Your task to perform on an android device: View the shopping cart on walmart.com. Add "razer blackwidow" to the cart on walmart.com Image 0: 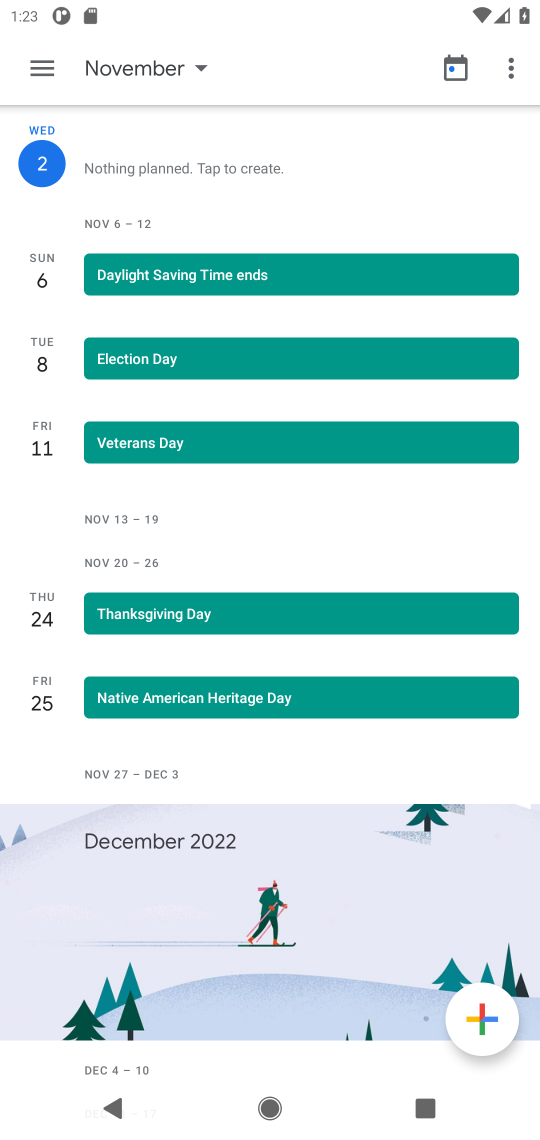
Step 0: press home button
Your task to perform on an android device: View the shopping cart on walmart.com. Add "razer blackwidow" to the cart on walmart.com Image 1: 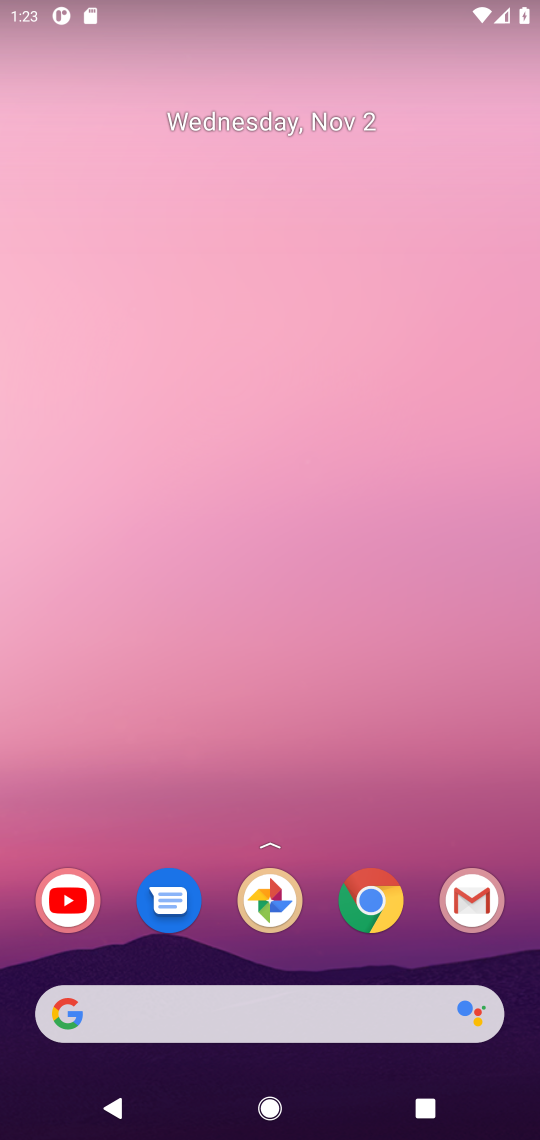
Step 1: click (357, 878)
Your task to perform on an android device: View the shopping cart on walmart.com. Add "razer blackwidow" to the cart on walmart.com Image 2: 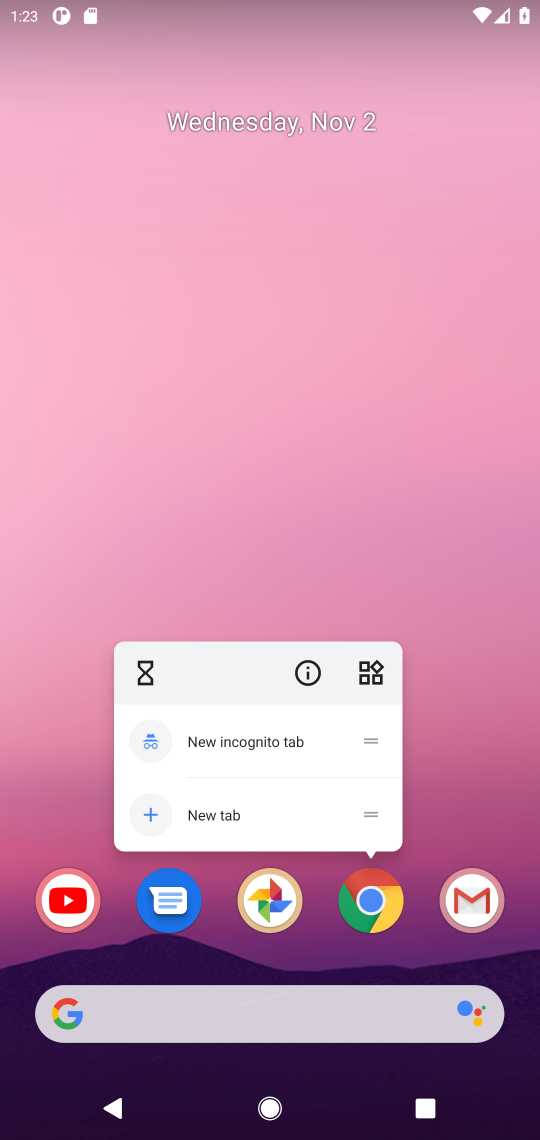
Step 2: click (391, 910)
Your task to perform on an android device: View the shopping cart on walmart.com. Add "razer blackwidow" to the cart on walmart.com Image 3: 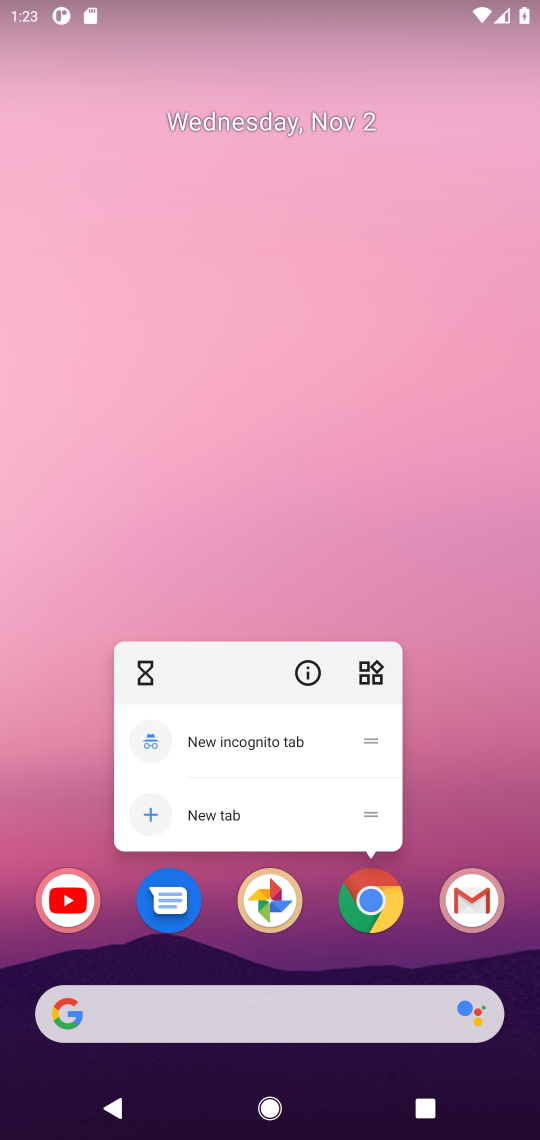
Step 3: click (341, 907)
Your task to perform on an android device: View the shopping cart on walmart.com. Add "razer blackwidow" to the cart on walmart.com Image 4: 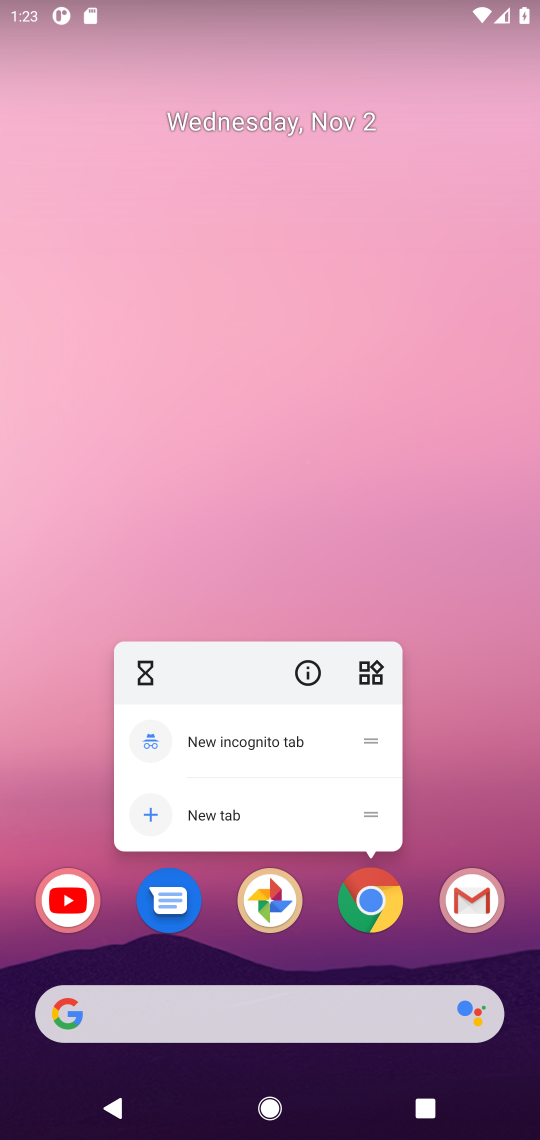
Step 4: click (363, 908)
Your task to perform on an android device: View the shopping cart on walmart.com. Add "razer blackwidow" to the cart on walmart.com Image 5: 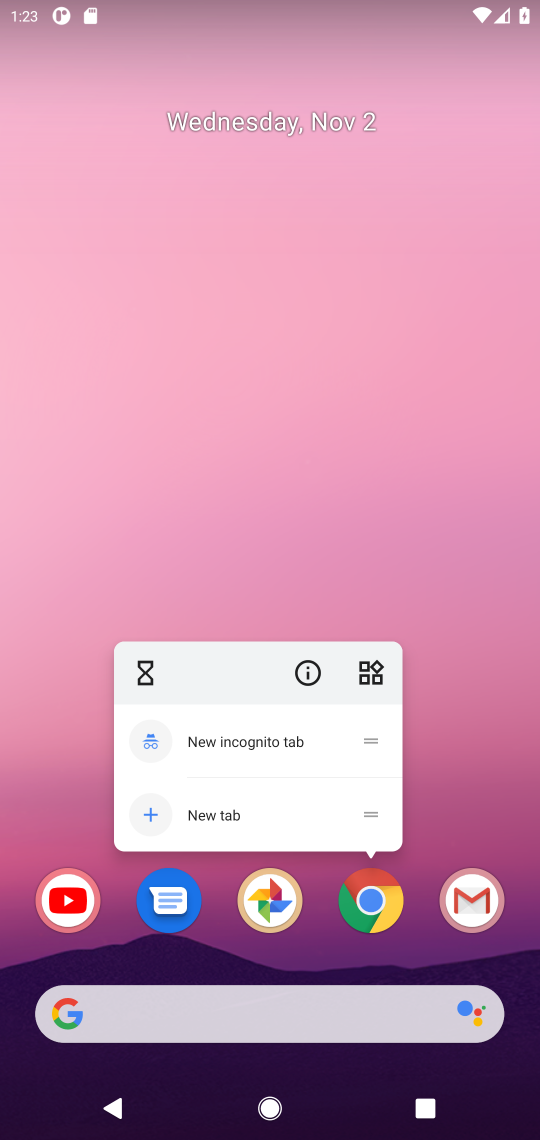
Step 5: click (363, 908)
Your task to perform on an android device: View the shopping cart on walmart.com. Add "razer blackwidow" to the cart on walmart.com Image 6: 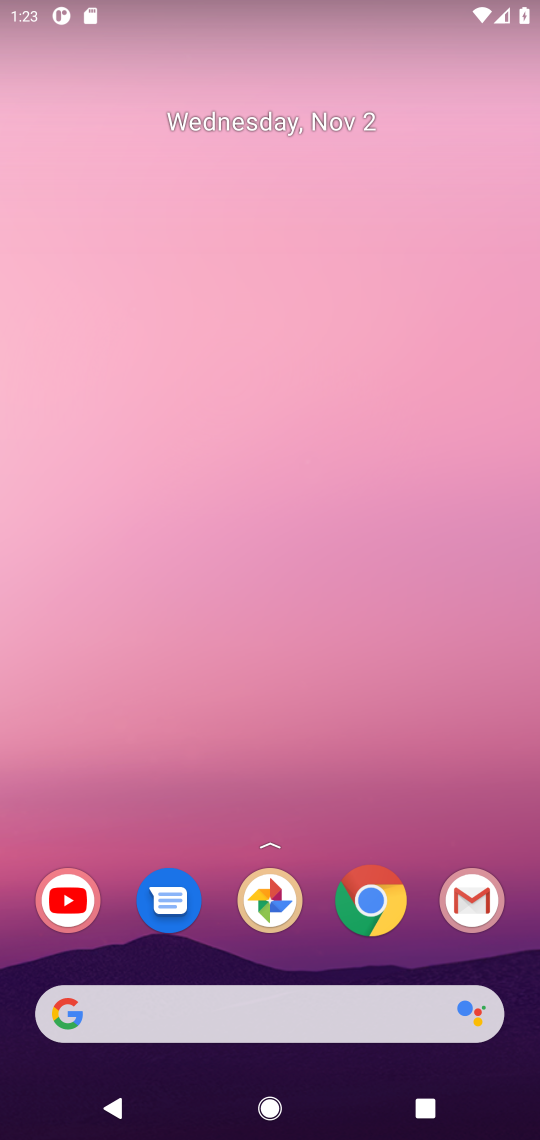
Step 6: click (364, 909)
Your task to perform on an android device: View the shopping cart on walmart.com. Add "razer blackwidow" to the cart on walmart.com Image 7: 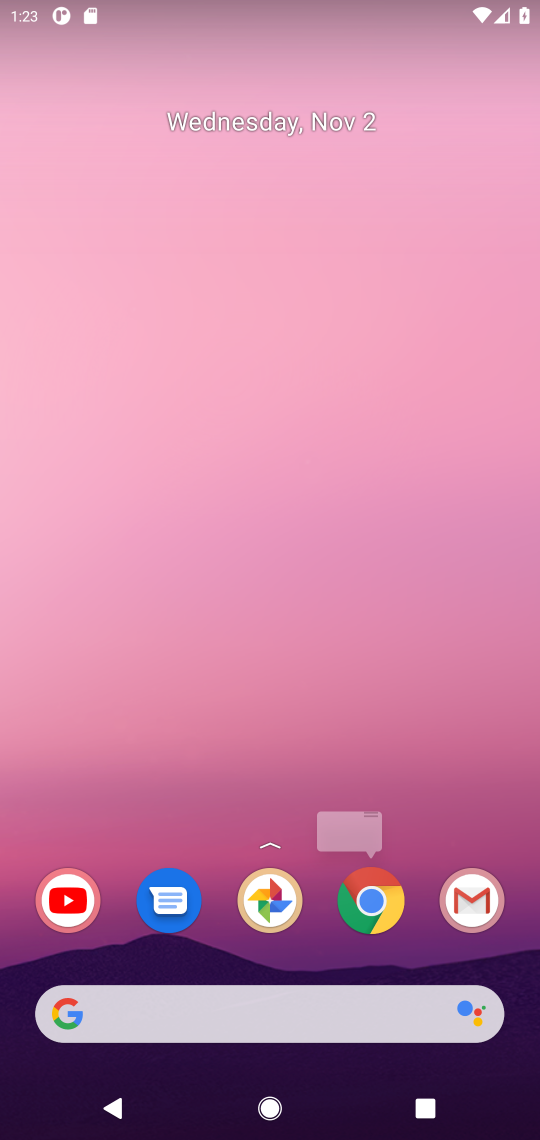
Step 7: click (364, 912)
Your task to perform on an android device: View the shopping cart on walmart.com. Add "razer blackwidow" to the cart on walmart.com Image 8: 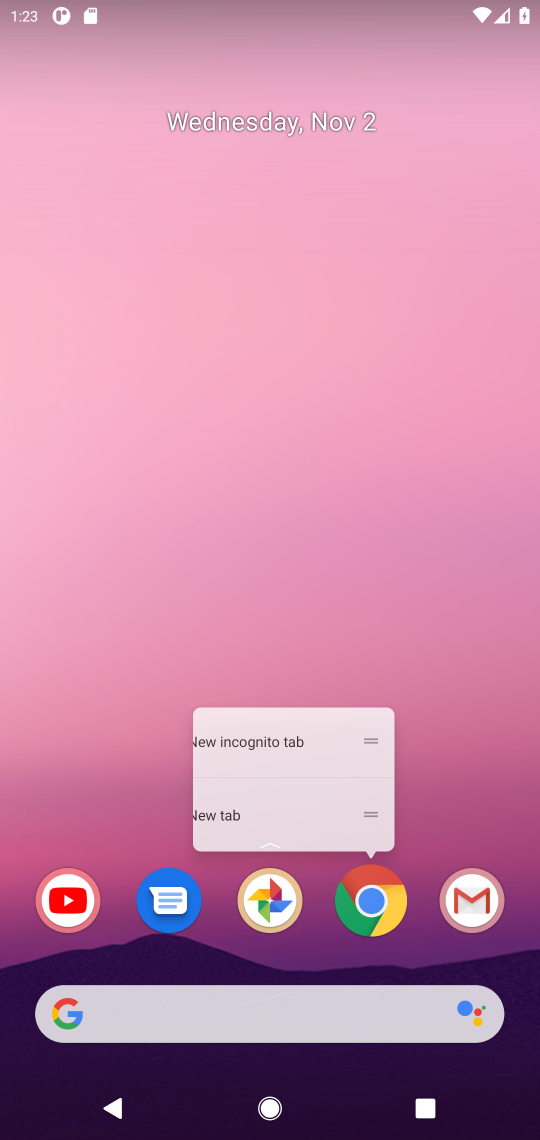
Step 8: click (366, 916)
Your task to perform on an android device: View the shopping cart on walmart.com. Add "razer blackwidow" to the cart on walmart.com Image 9: 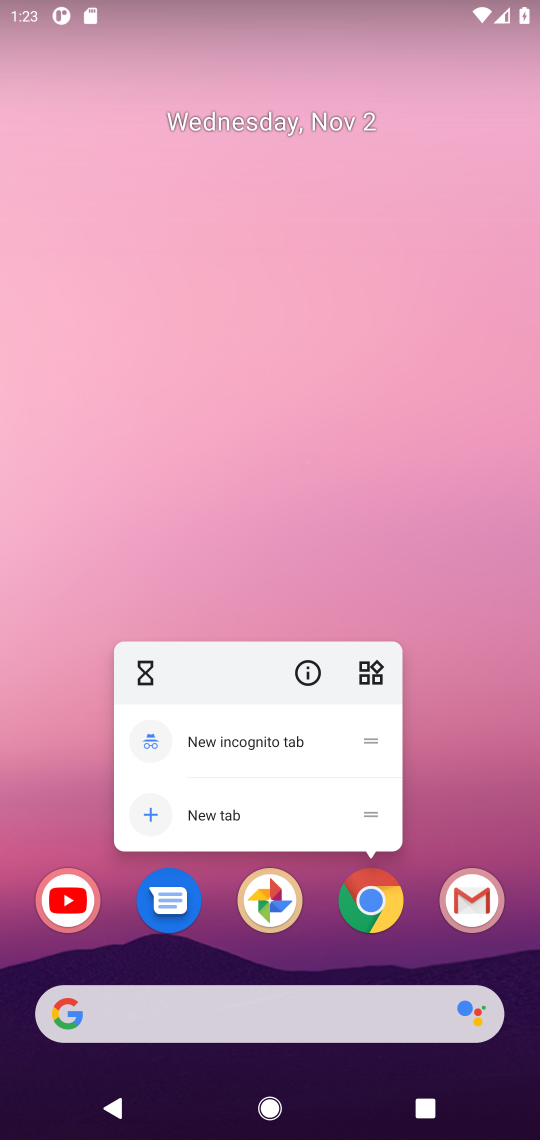
Step 9: press home button
Your task to perform on an android device: View the shopping cart on walmart.com. Add "razer blackwidow" to the cart on walmart.com Image 10: 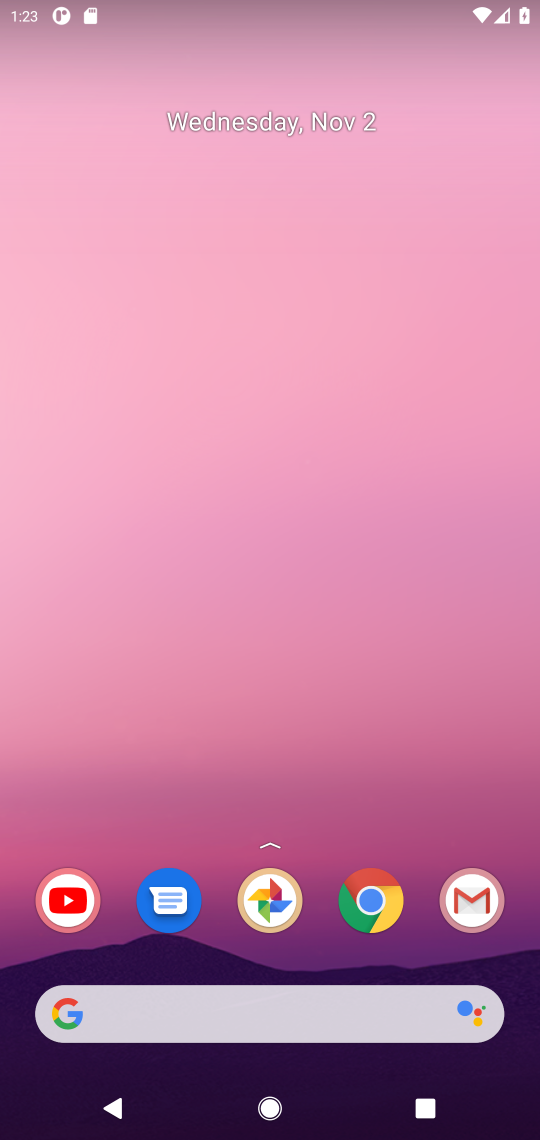
Step 10: click (384, 907)
Your task to perform on an android device: View the shopping cart on walmart.com. Add "razer blackwidow" to the cart on walmart.com Image 11: 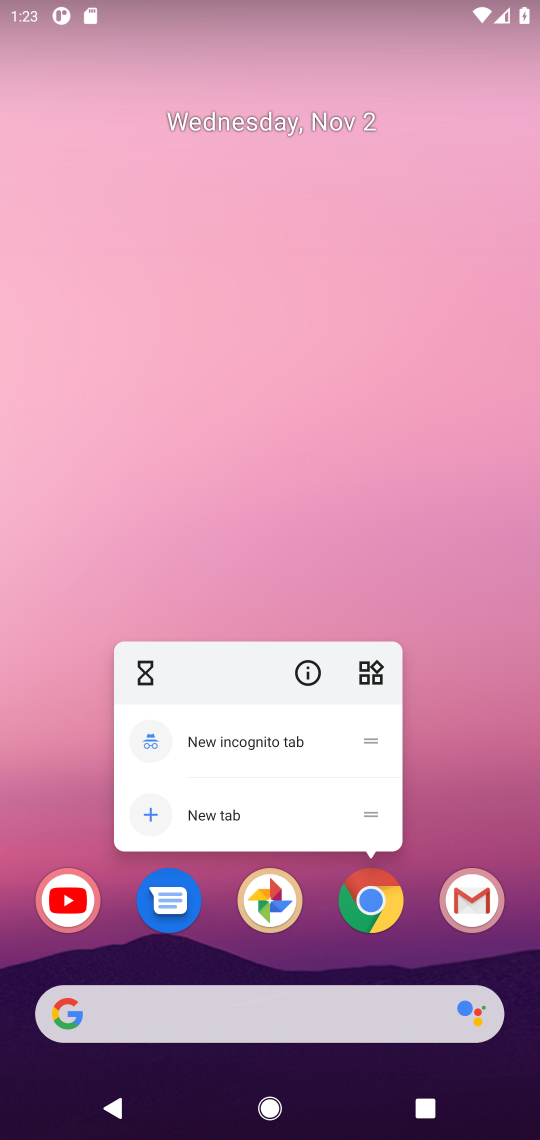
Step 11: click (367, 905)
Your task to perform on an android device: View the shopping cart on walmart.com. Add "razer blackwidow" to the cart on walmart.com Image 12: 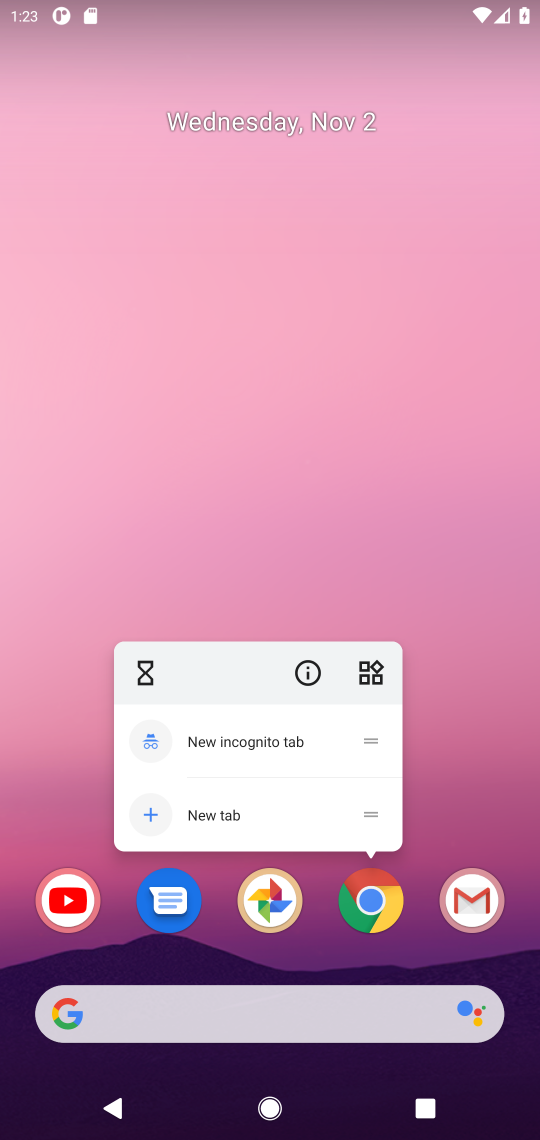
Step 12: click (376, 916)
Your task to perform on an android device: View the shopping cart on walmart.com. Add "razer blackwidow" to the cart on walmart.com Image 13: 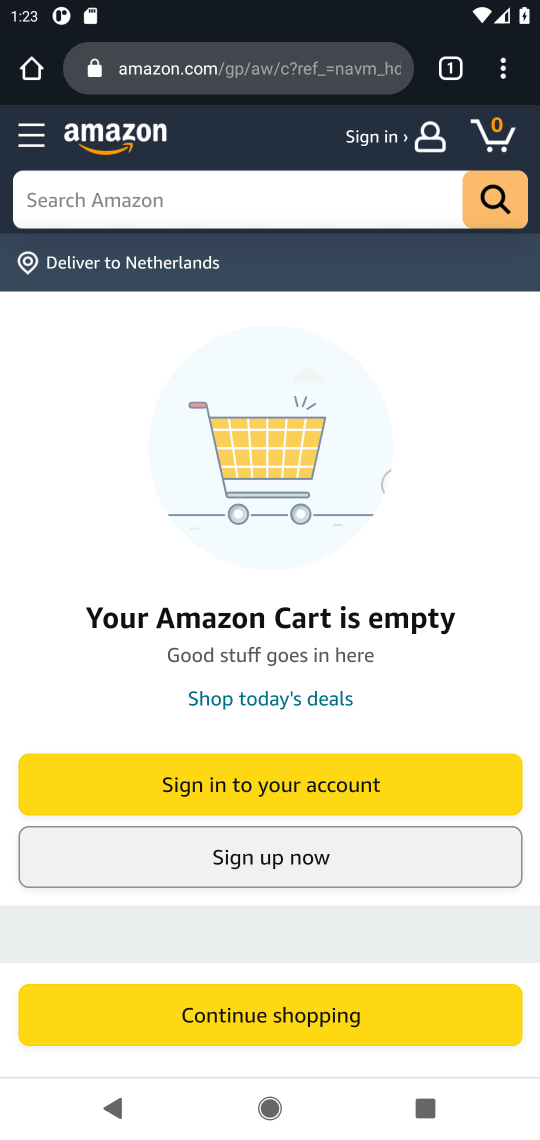
Step 13: click (182, 65)
Your task to perform on an android device: View the shopping cart on walmart.com. Add "razer blackwidow" to the cart on walmart.com Image 14: 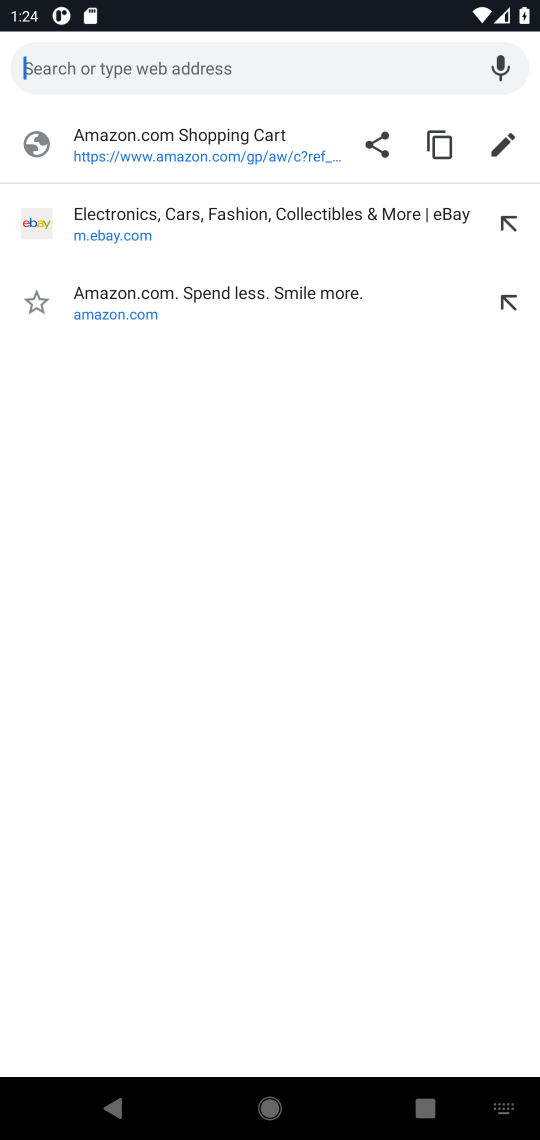
Step 14: type "walmart"
Your task to perform on an android device: View the shopping cart on walmart.com. Add "razer blackwidow" to the cart on walmart.com Image 15: 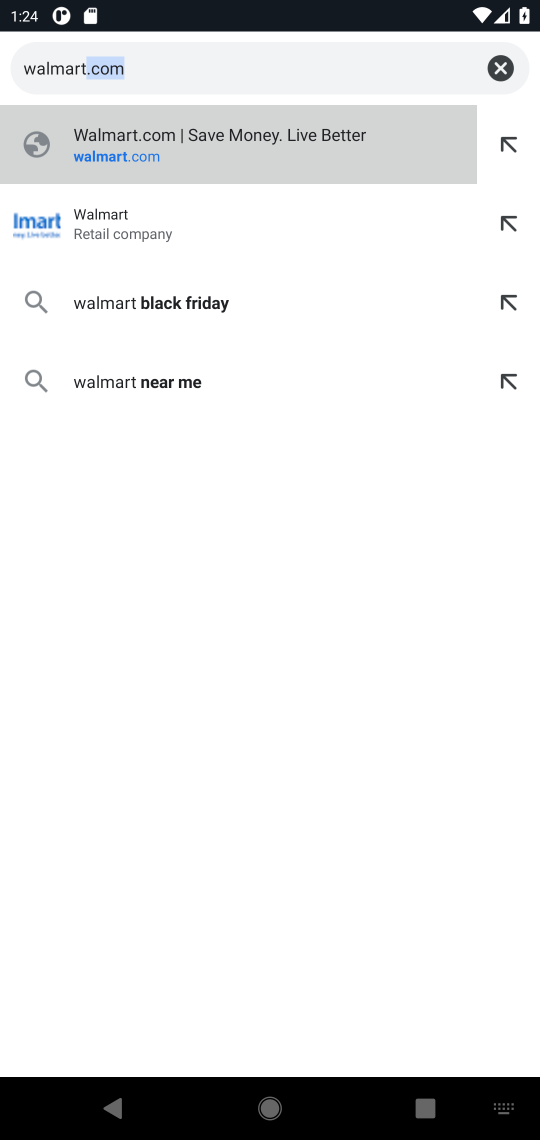
Step 15: type ""
Your task to perform on an android device: View the shopping cart on walmart.com. Add "razer blackwidow" to the cart on walmart.com Image 16: 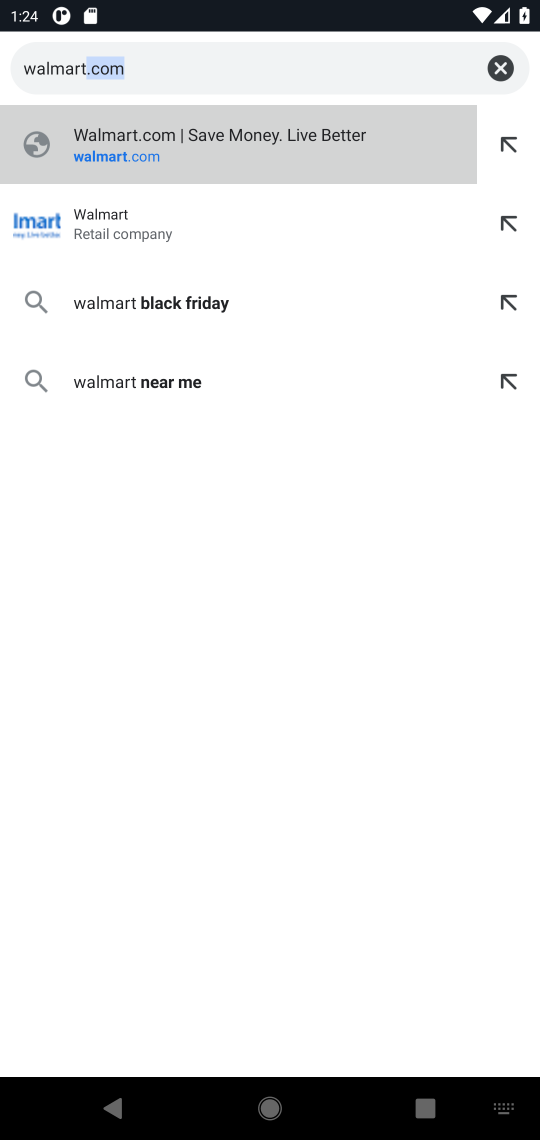
Step 16: click (80, 225)
Your task to perform on an android device: View the shopping cart on walmart.com. Add "razer blackwidow" to the cart on walmart.com Image 17: 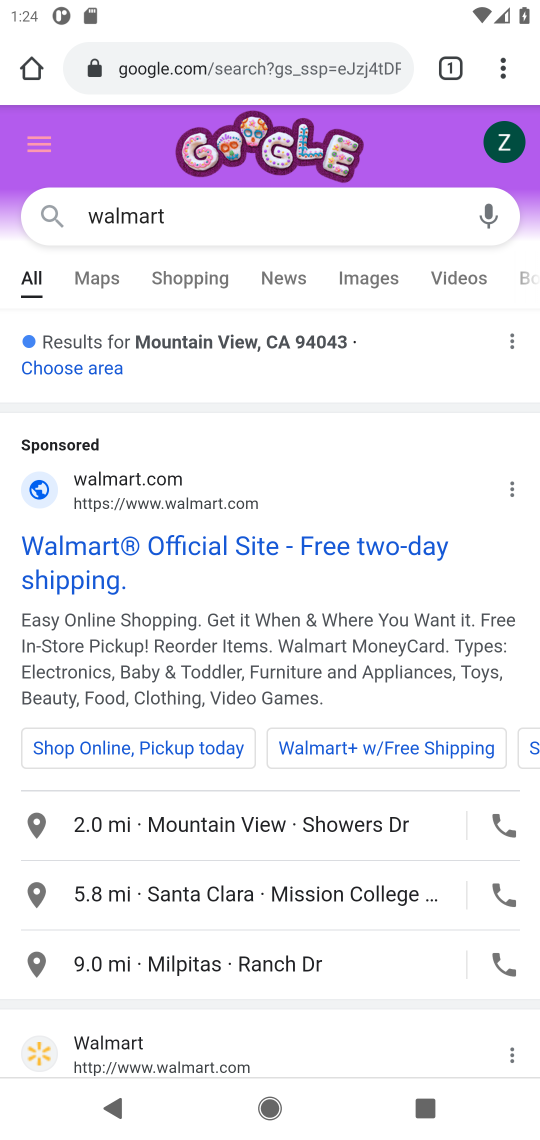
Step 17: drag from (308, 820) to (381, 237)
Your task to perform on an android device: View the shopping cart on walmart.com. Add "razer blackwidow" to the cart on walmart.com Image 18: 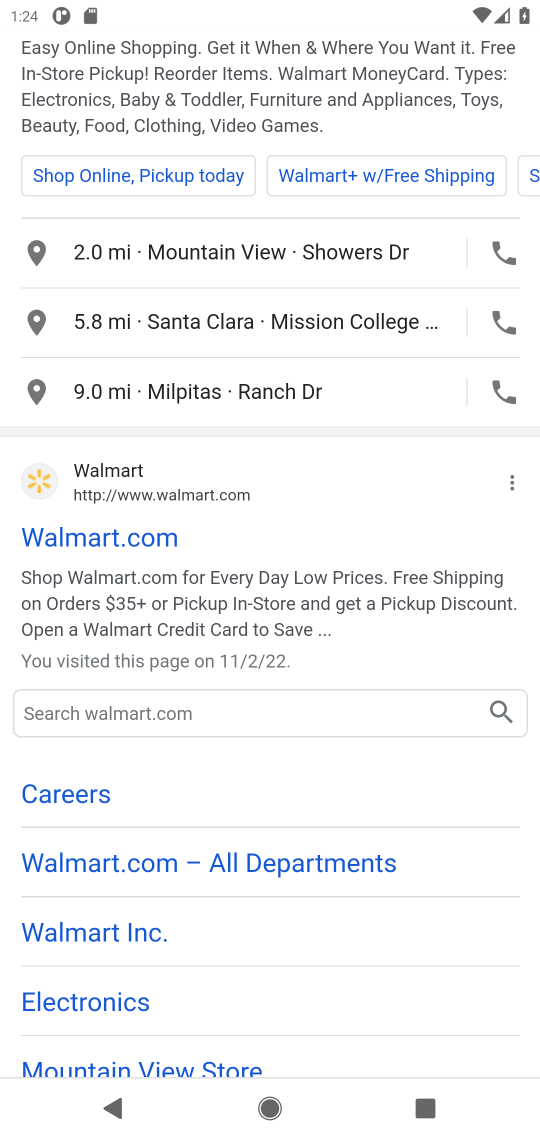
Step 18: click (84, 540)
Your task to perform on an android device: View the shopping cart on walmart.com. Add "razer blackwidow" to the cart on walmart.com Image 19: 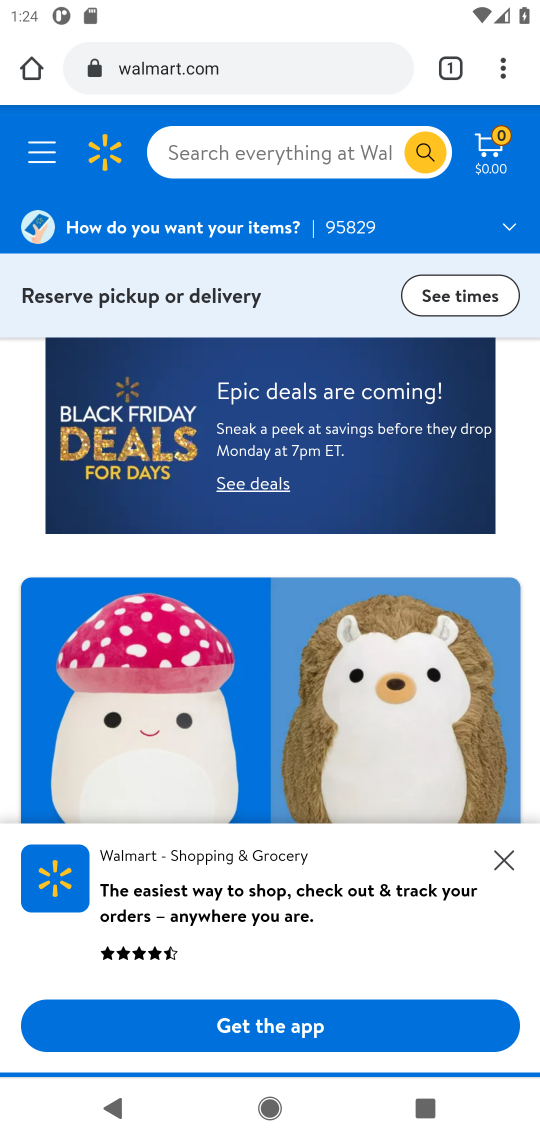
Step 19: click (501, 857)
Your task to perform on an android device: View the shopping cart on walmart.com. Add "razer blackwidow" to the cart on walmart.com Image 20: 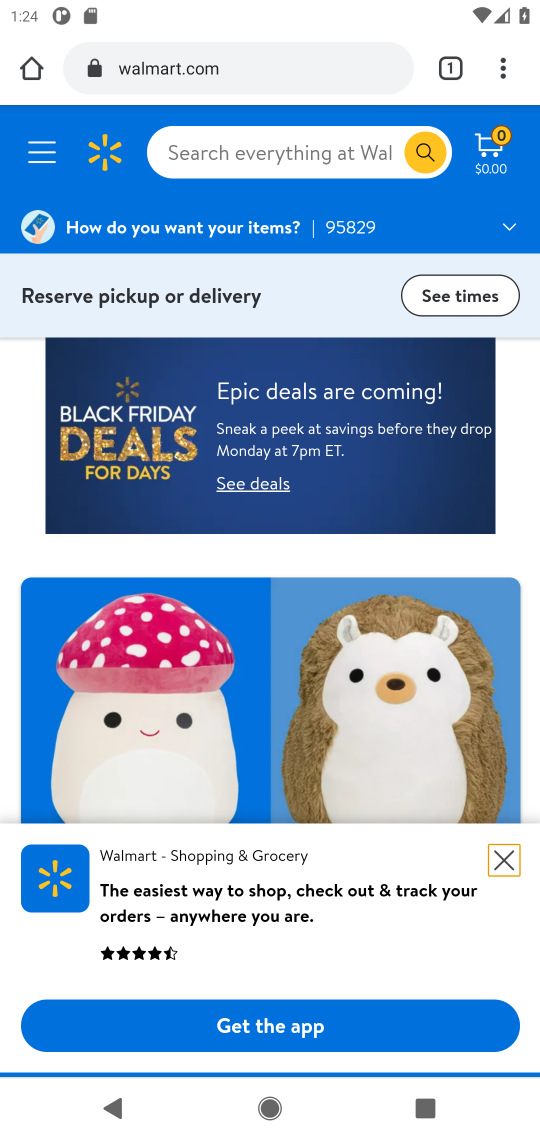
Step 20: click (184, 150)
Your task to perform on an android device: View the shopping cart on walmart.com. Add "razer blackwidow" to the cart on walmart.com Image 21: 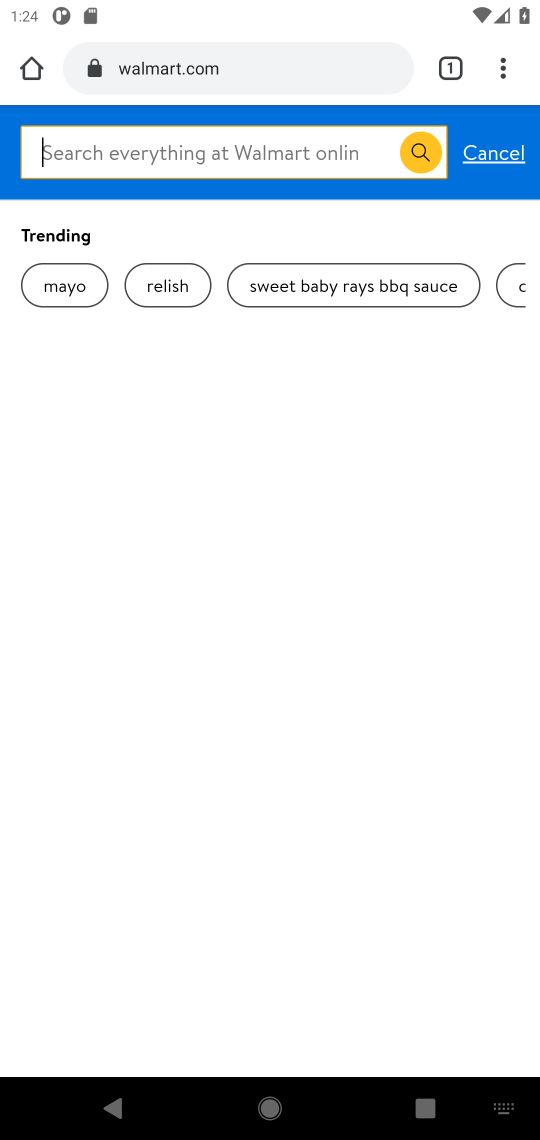
Step 21: type "razer blackwidow"
Your task to perform on an android device: View the shopping cart on walmart.com. Add "razer blackwidow" to the cart on walmart.com Image 22: 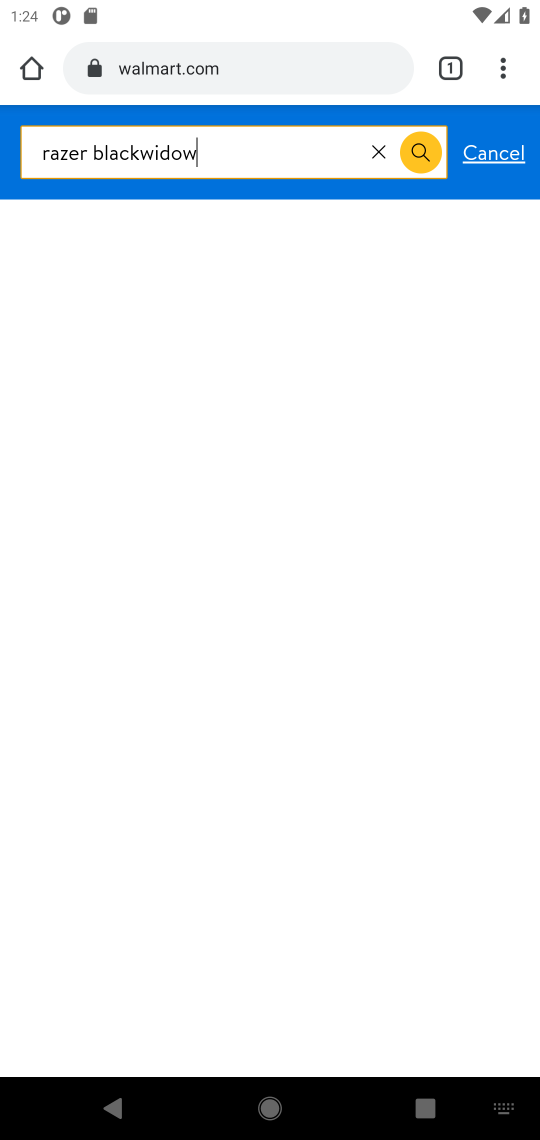
Step 22: type ""
Your task to perform on an android device: View the shopping cart on walmart.com. Add "razer blackwidow" to the cart on walmart.com Image 23: 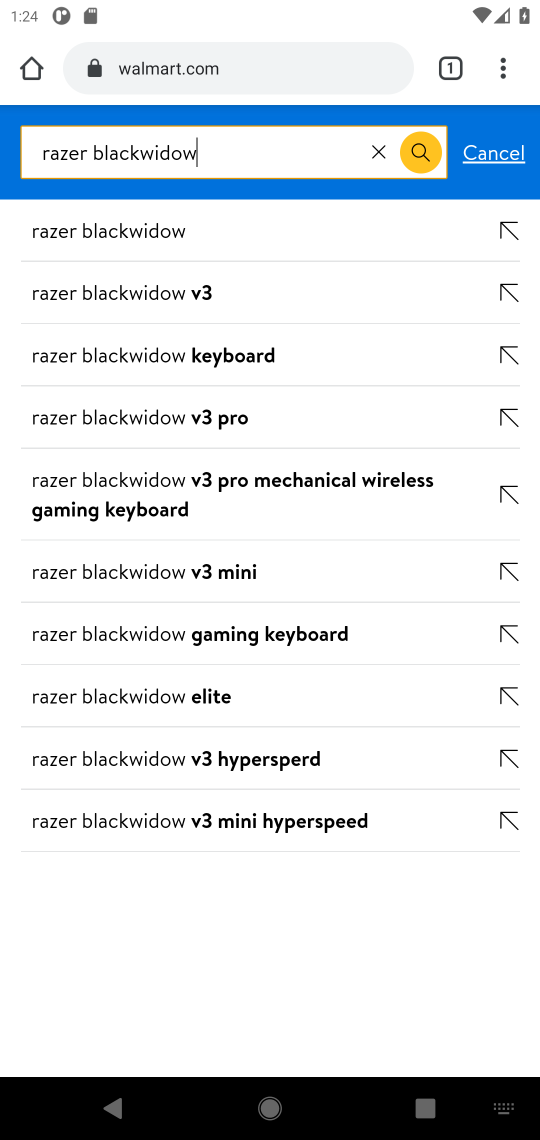
Step 23: click (150, 220)
Your task to perform on an android device: View the shopping cart on walmart.com. Add "razer blackwidow" to the cart on walmart.com Image 24: 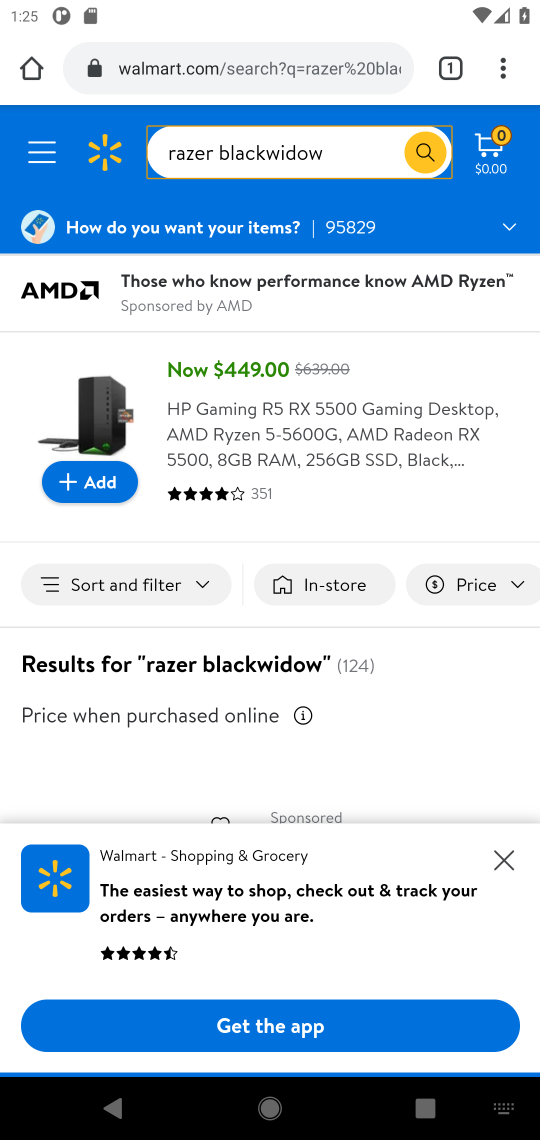
Step 24: click (504, 865)
Your task to perform on an android device: View the shopping cart on walmart.com. Add "razer blackwidow" to the cart on walmart.com Image 25: 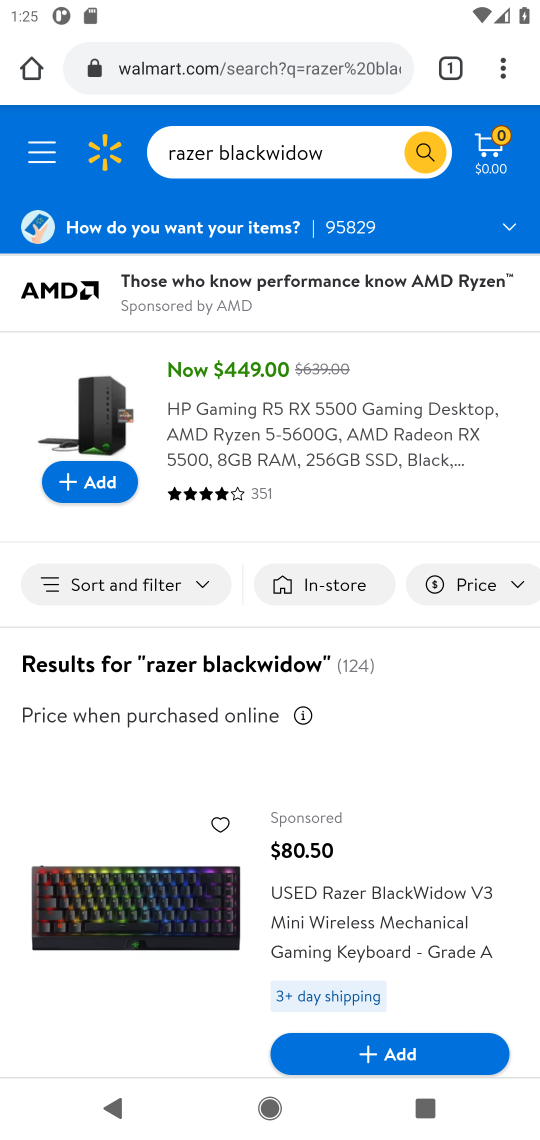
Step 25: drag from (160, 921) to (180, 468)
Your task to perform on an android device: View the shopping cart on walmart.com. Add "razer blackwidow" to the cart on walmart.com Image 26: 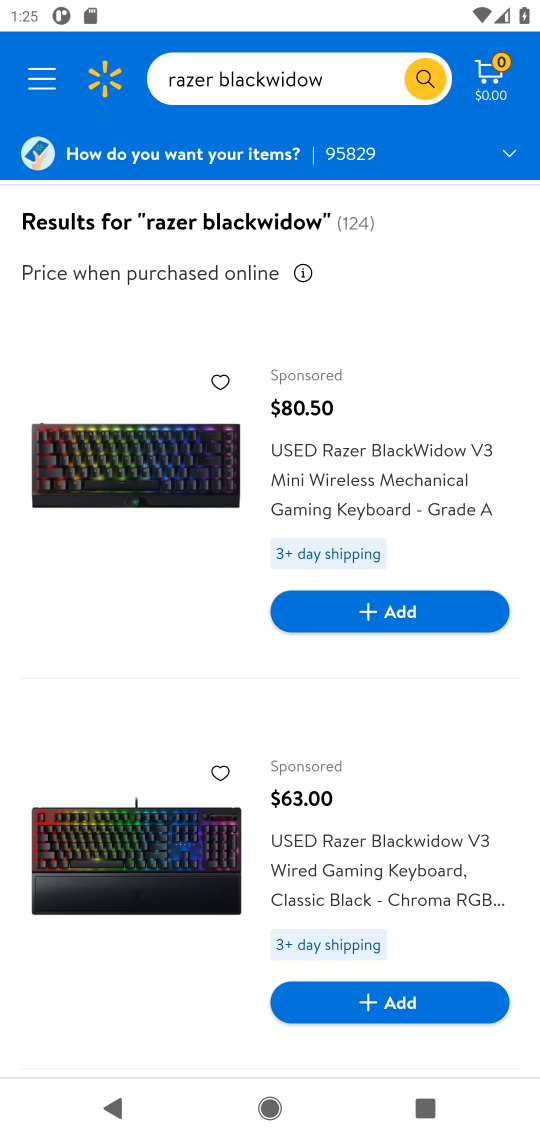
Step 26: click (401, 618)
Your task to perform on an android device: View the shopping cart on walmart.com. Add "razer blackwidow" to the cart on walmart.com Image 27: 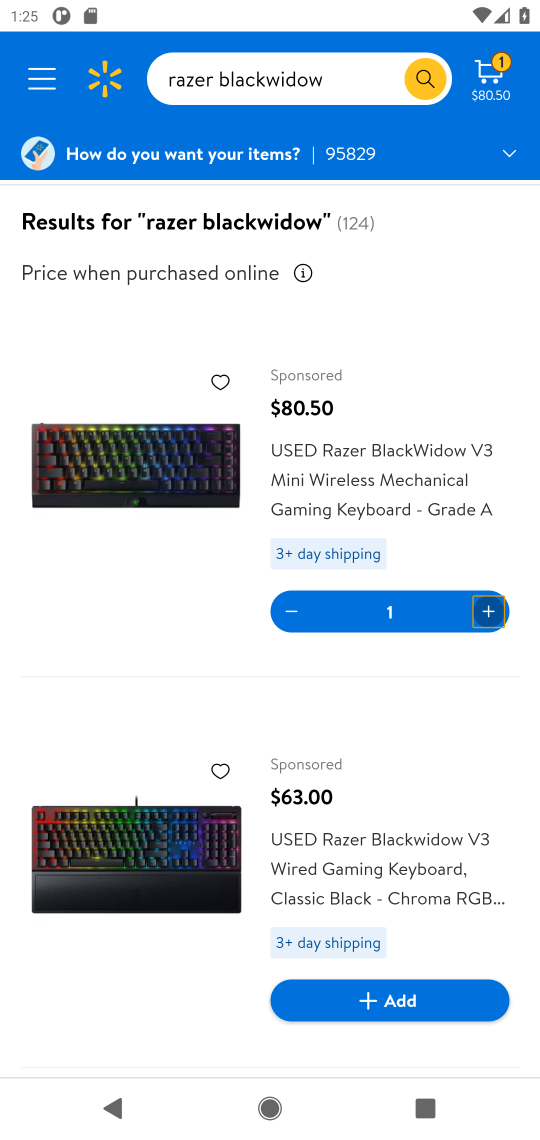
Step 27: drag from (129, 932) to (136, 384)
Your task to perform on an android device: View the shopping cart on walmart.com. Add "razer blackwidow" to the cart on walmart.com Image 28: 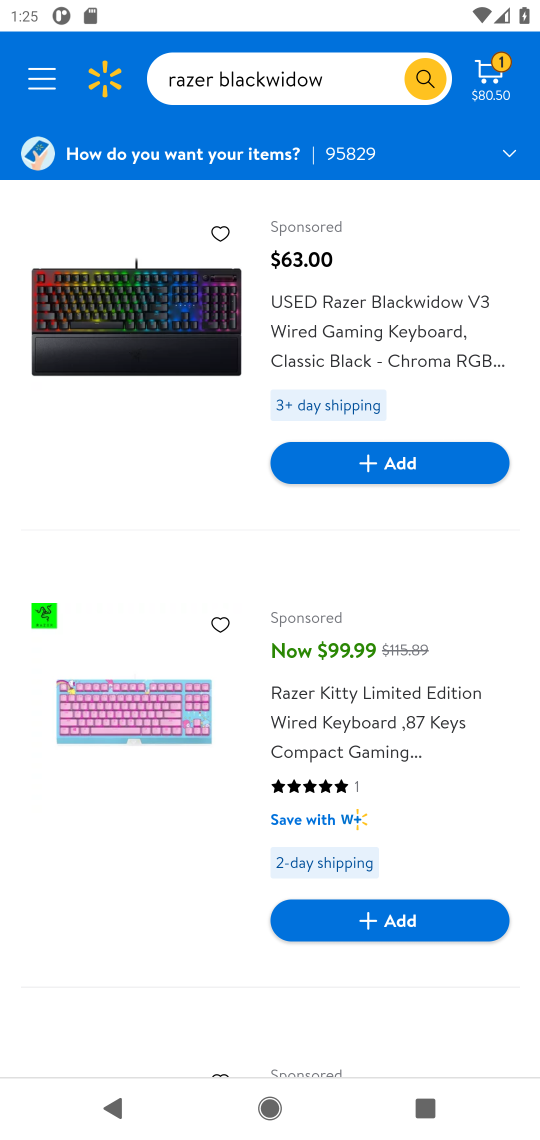
Step 28: click (487, 70)
Your task to perform on an android device: View the shopping cart on walmart.com. Add "razer blackwidow" to the cart on walmart.com Image 29: 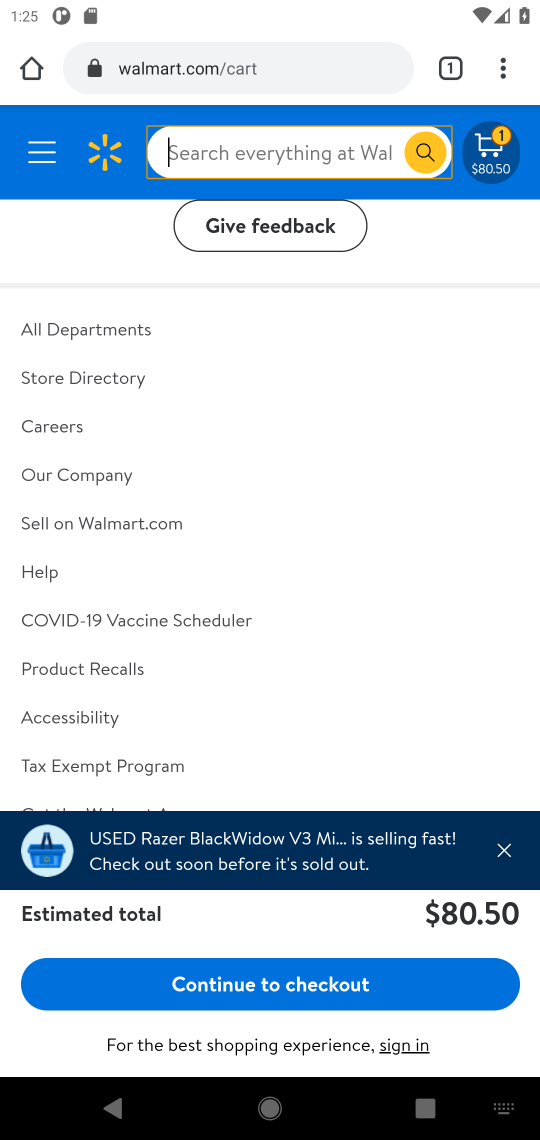
Step 29: click (481, 167)
Your task to perform on an android device: View the shopping cart on walmart.com. Add "razer blackwidow" to the cart on walmart.com Image 30: 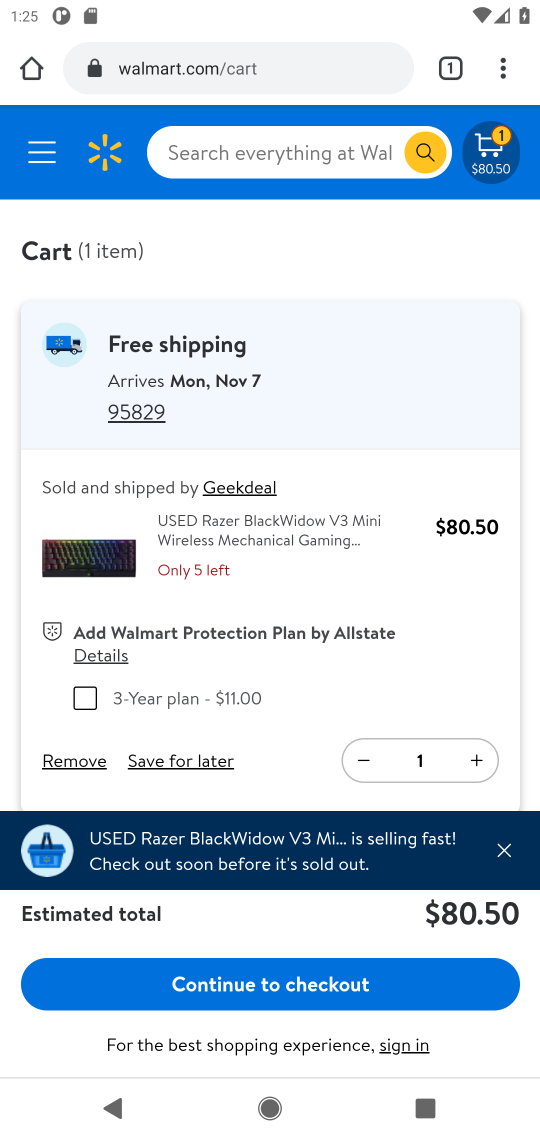
Step 30: click (503, 855)
Your task to perform on an android device: View the shopping cart on walmart.com. Add "razer blackwidow" to the cart on walmart.com Image 31: 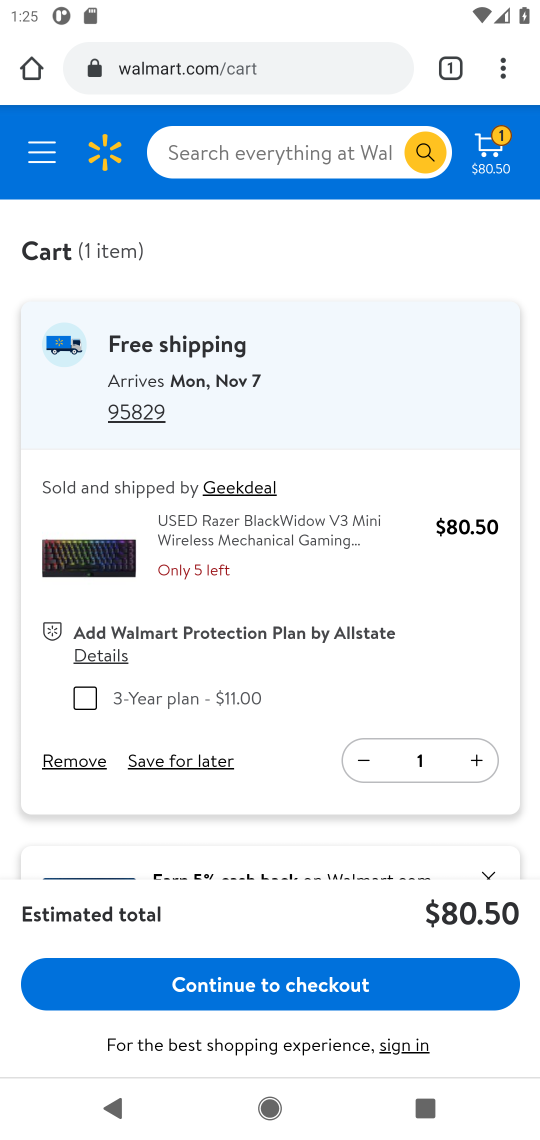
Step 31: task complete